Your task to perform on an android device: refresh tabs in the chrome app Image 0: 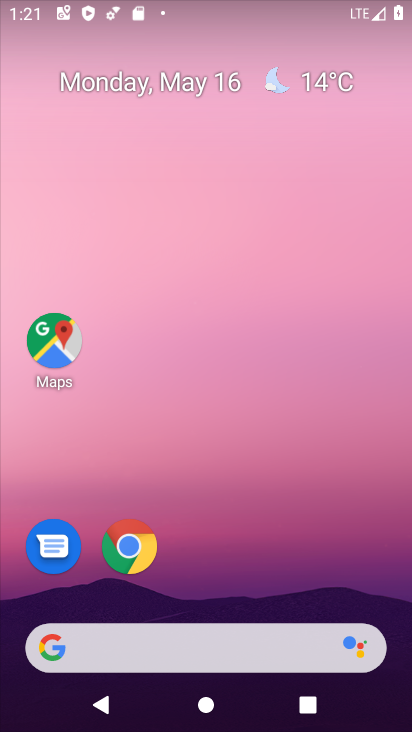
Step 0: drag from (240, 634) to (397, 179)
Your task to perform on an android device: refresh tabs in the chrome app Image 1: 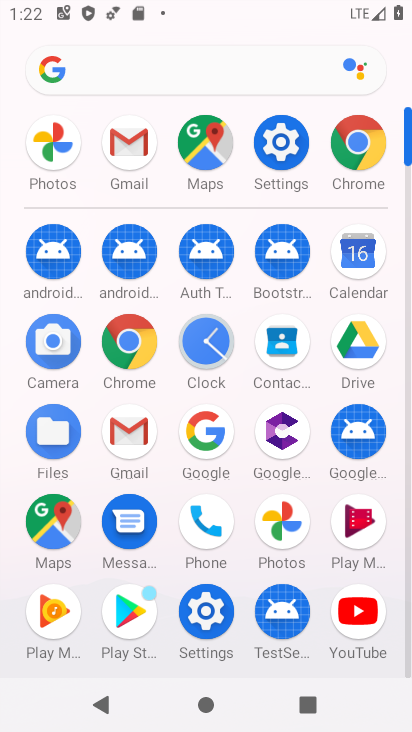
Step 1: click (132, 341)
Your task to perform on an android device: refresh tabs in the chrome app Image 2: 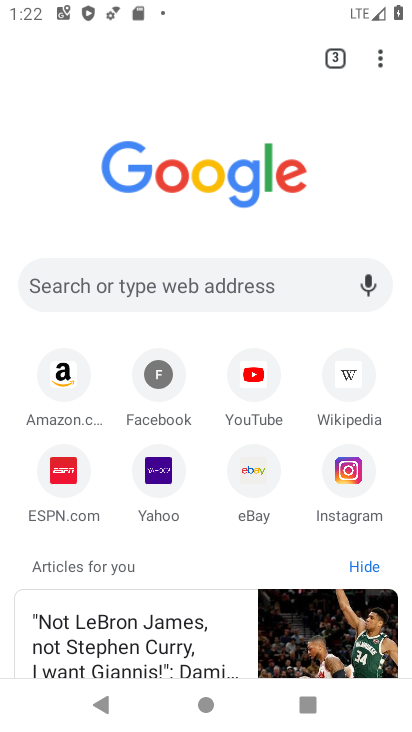
Step 2: click (378, 65)
Your task to perform on an android device: refresh tabs in the chrome app Image 3: 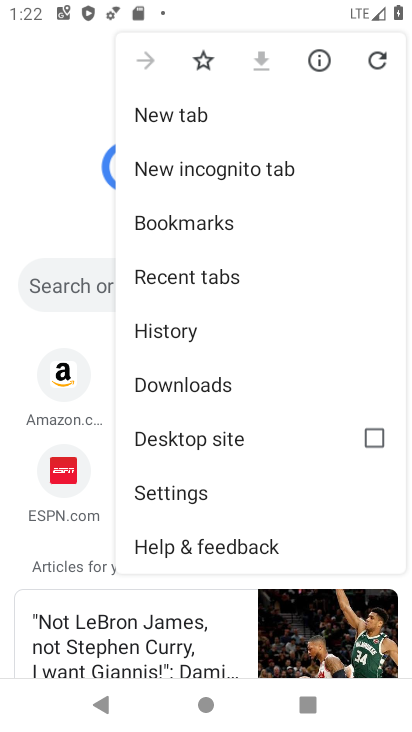
Step 3: click (376, 66)
Your task to perform on an android device: refresh tabs in the chrome app Image 4: 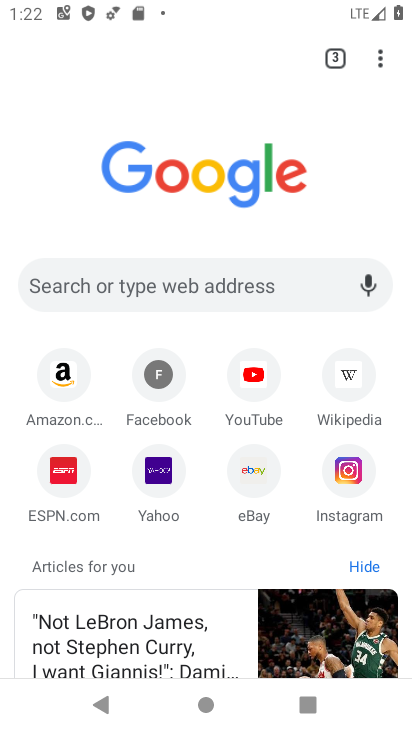
Step 4: task complete